Your task to perform on an android device: Open settings on Google Maps Image 0: 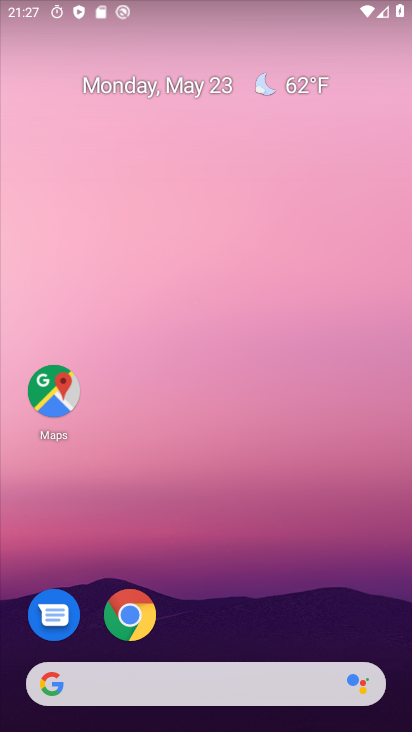
Step 0: click (46, 400)
Your task to perform on an android device: Open settings on Google Maps Image 1: 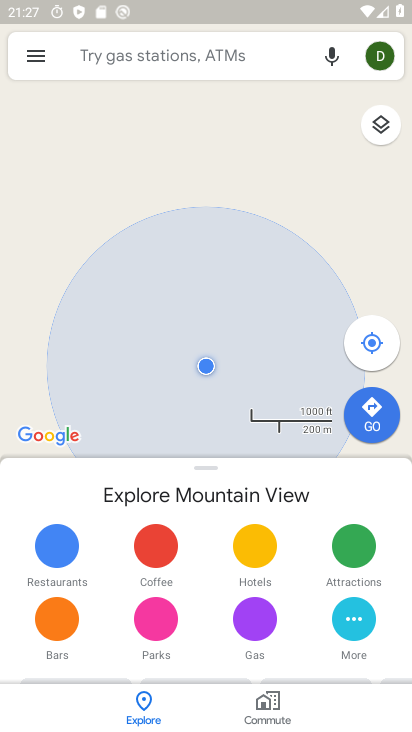
Step 1: click (36, 61)
Your task to perform on an android device: Open settings on Google Maps Image 2: 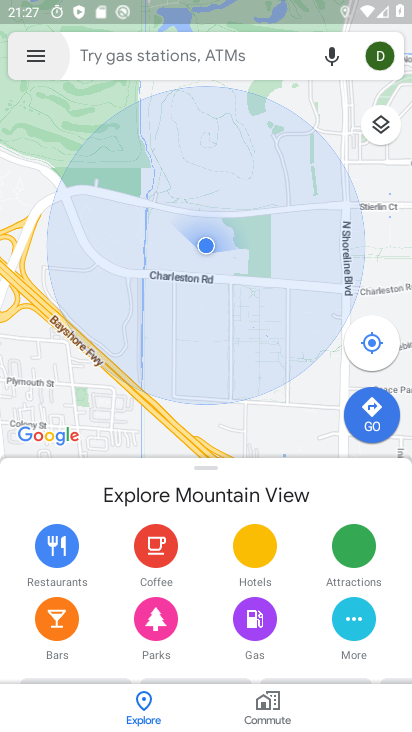
Step 2: click (36, 54)
Your task to perform on an android device: Open settings on Google Maps Image 3: 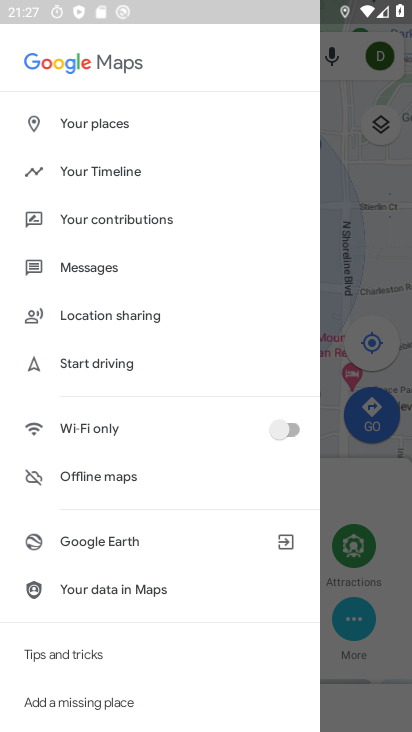
Step 3: drag from (176, 633) to (171, 334)
Your task to perform on an android device: Open settings on Google Maps Image 4: 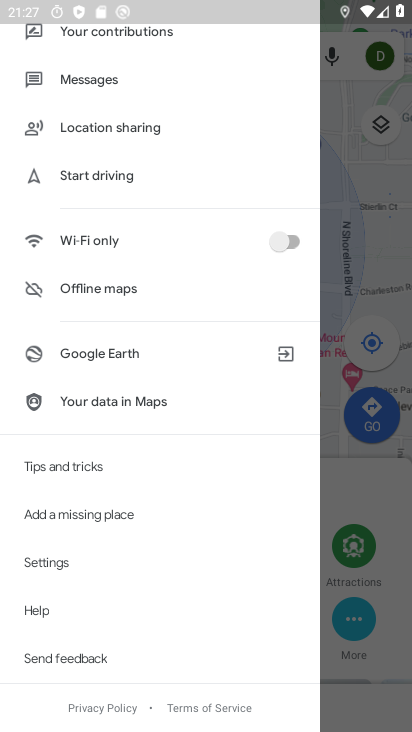
Step 4: click (82, 567)
Your task to perform on an android device: Open settings on Google Maps Image 5: 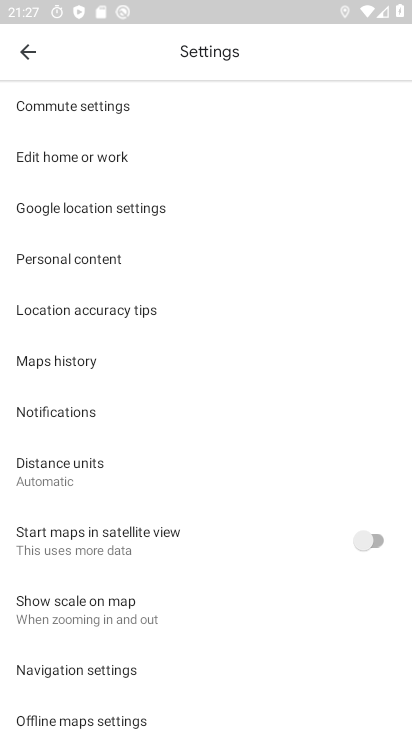
Step 5: task complete